Your task to perform on an android device: move a message to another label in the gmail app Image 0: 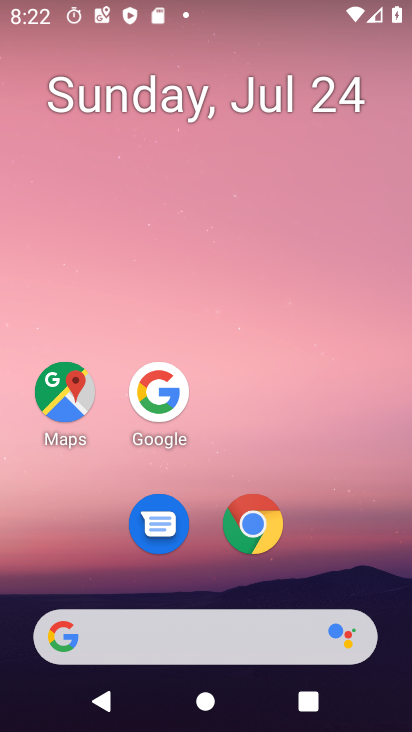
Step 0: press home button
Your task to perform on an android device: move a message to another label in the gmail app Image 1: 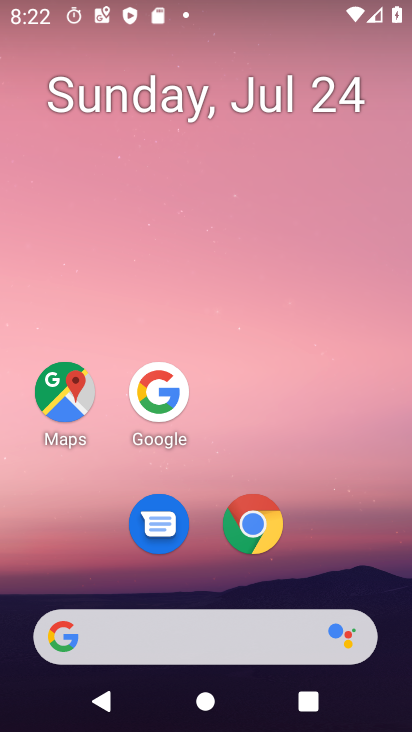
Step 1: drag from (180, 631) to (309, 173)
Your task to perform on an android device: move a message to another label in the gmail app Image 2: 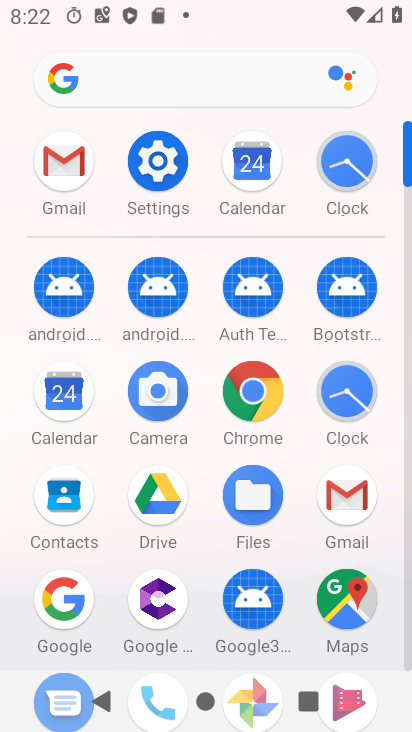
Step 2: click (53, 166)
Your task to perform on an android device: move a message to another label in the gmail app Image 3: 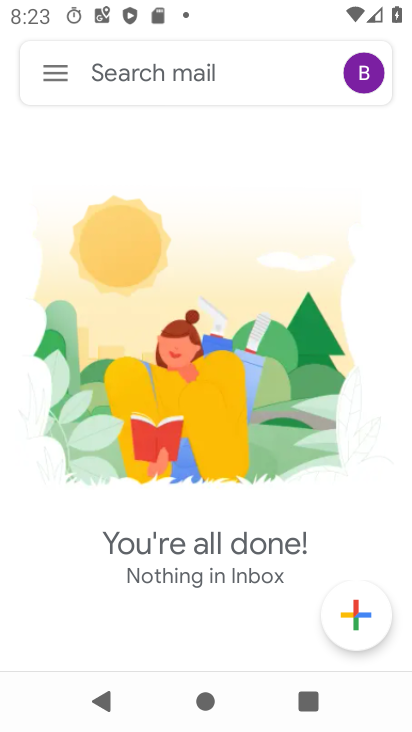
Step 3: task complete